Your task to perform on an android device: open app "Google Photos" Image 0: 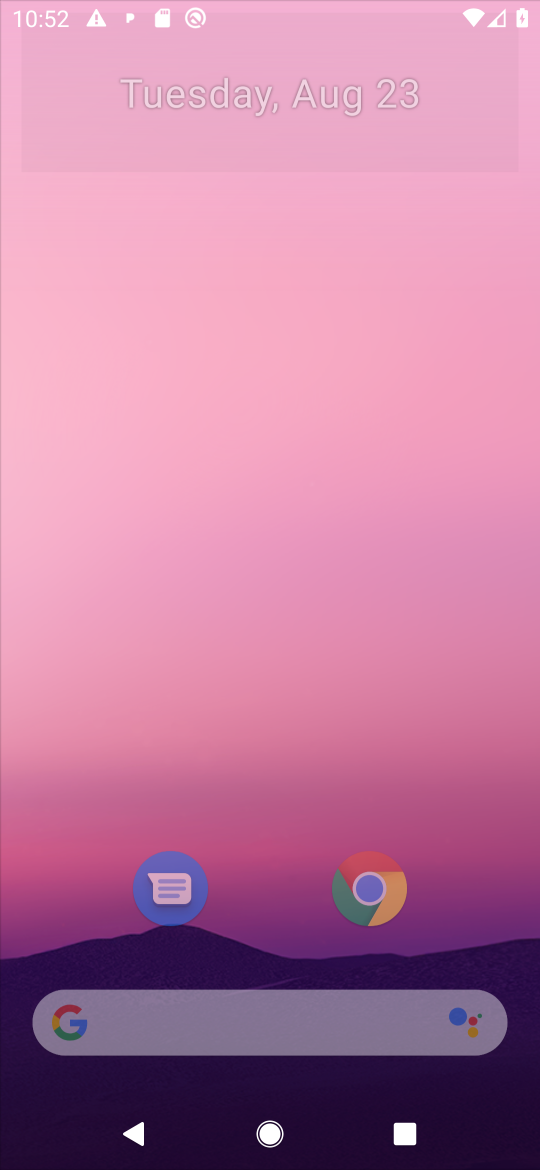
Step 0: press home button
Your task to perform on an android device: open app "Google Photos" Image 1: 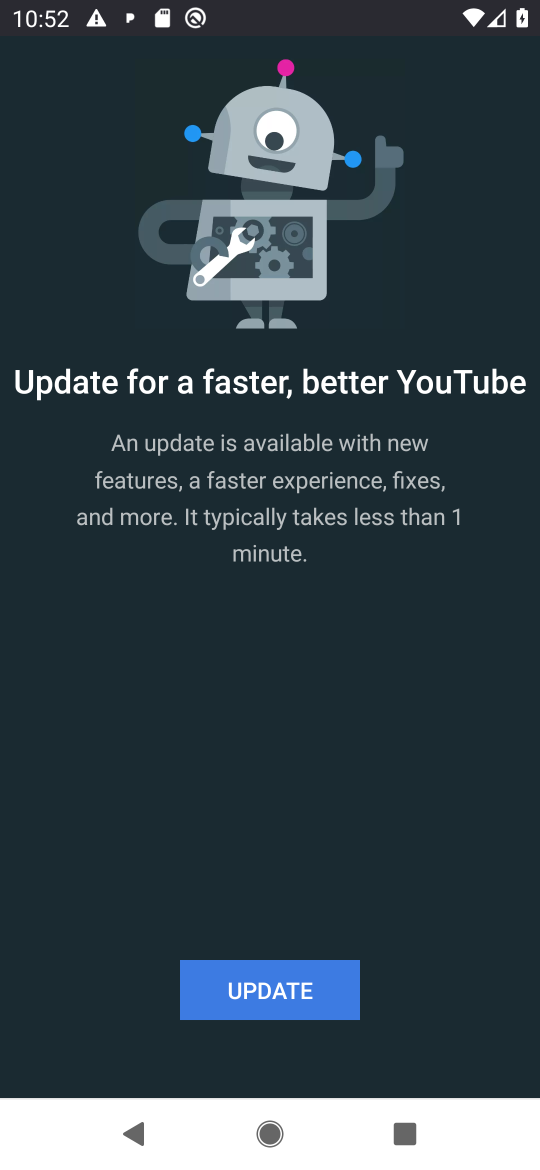
Step 1: drag from (445, 511) to (449, 130)
Your task to perform on an android device: open app "Google Photos" Image 2: 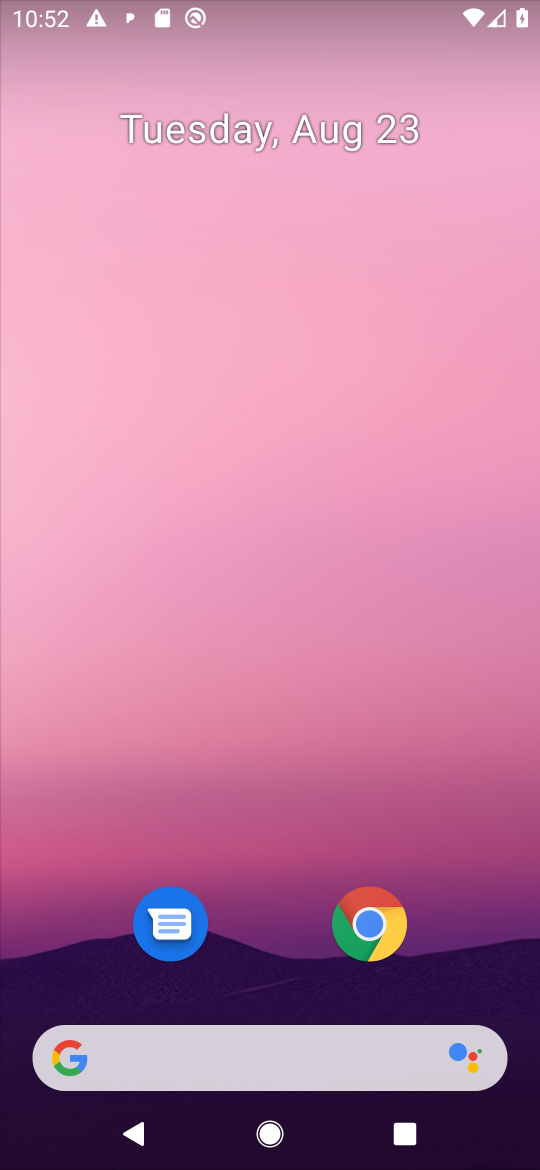
Step 2: drag from (447, 973) to (483, 63)
Your task to perform on an android device: open app "Google Photos" Image 3: 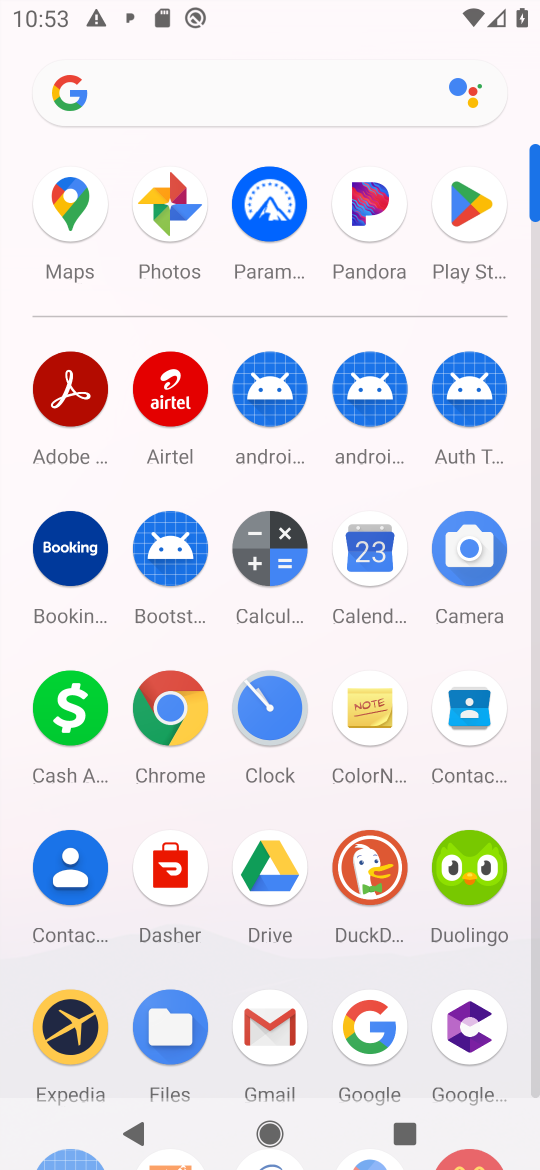
Step 3: click (467, 209)
Your task to perform on an android device: open app "Google Photos" Image 4: 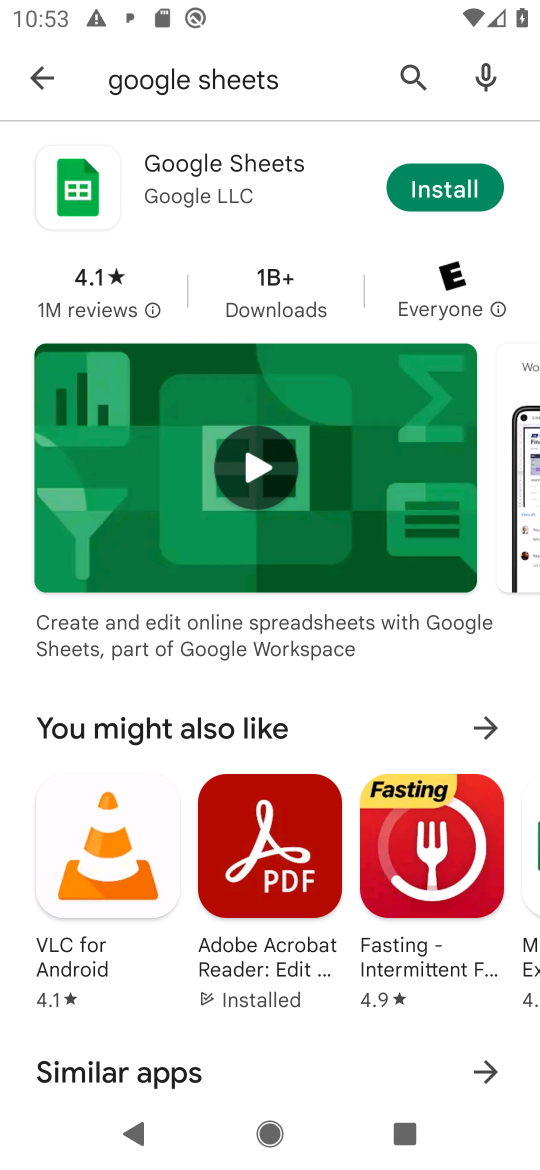
Step 4: press back button
Your task to perform on an android device: open app "Google Photos" Image 5: 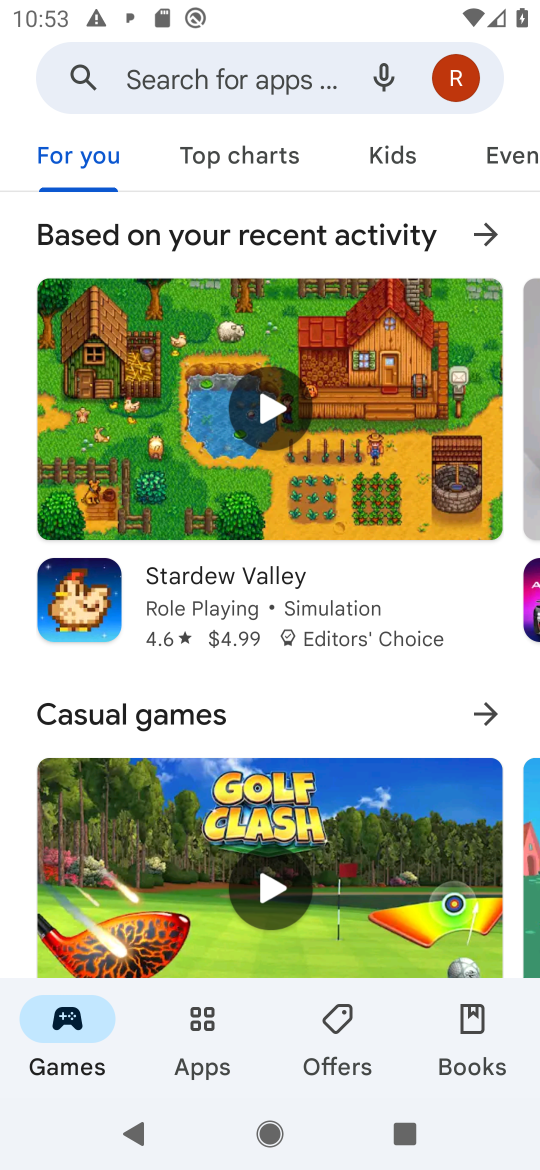
Step 5: click (245, 78)
Your task to perform on an android device: open app "Google Photos" Image 6: 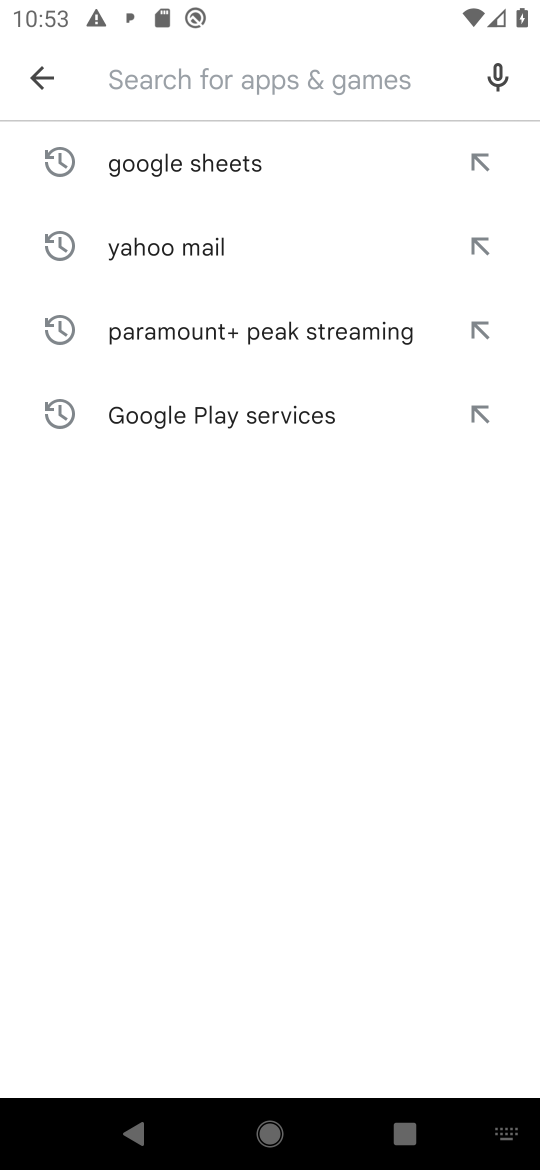
Step 6: type "google photos"
Your task to perform on an android device: open app "Google Photos" Image 7: 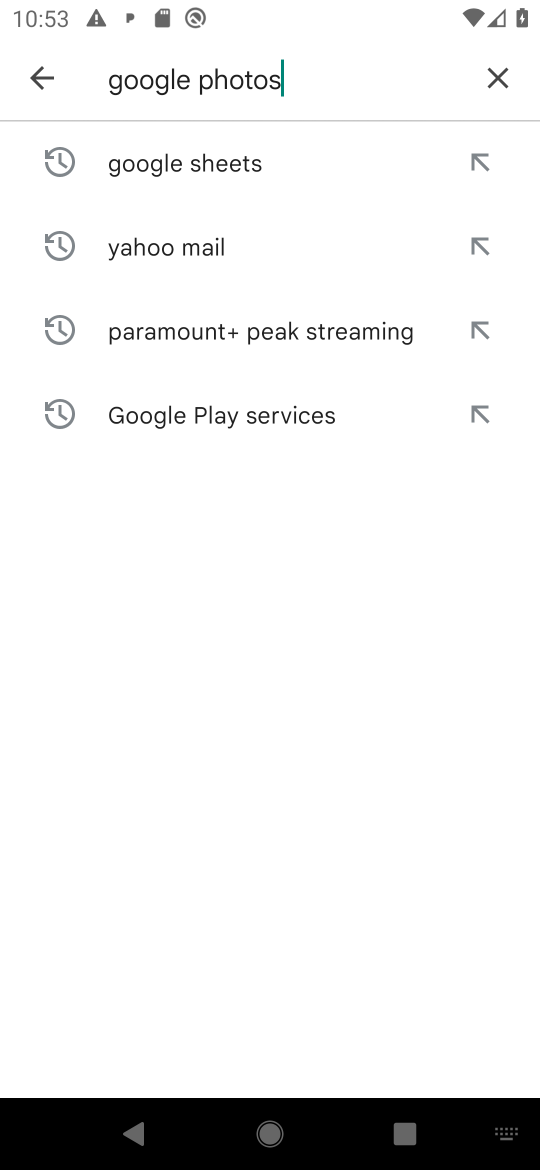
Step 7: press enter
Your task to perform on an android device: open app "Google Photos" Image 8: 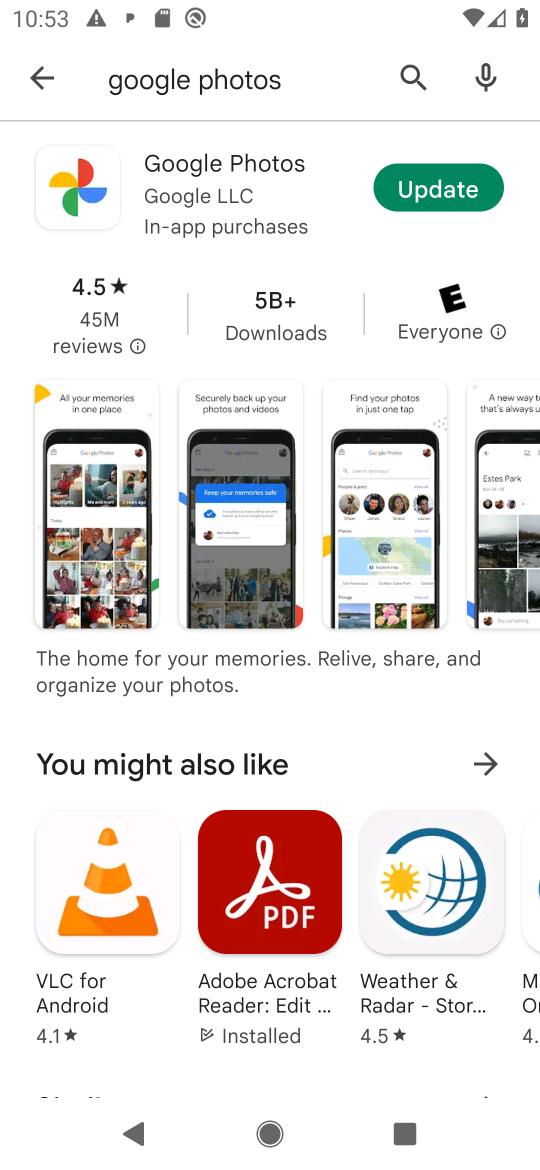
Step 8: click (421, 185)
Your task to perform on an android device: open app "Google Photos" Image 9: 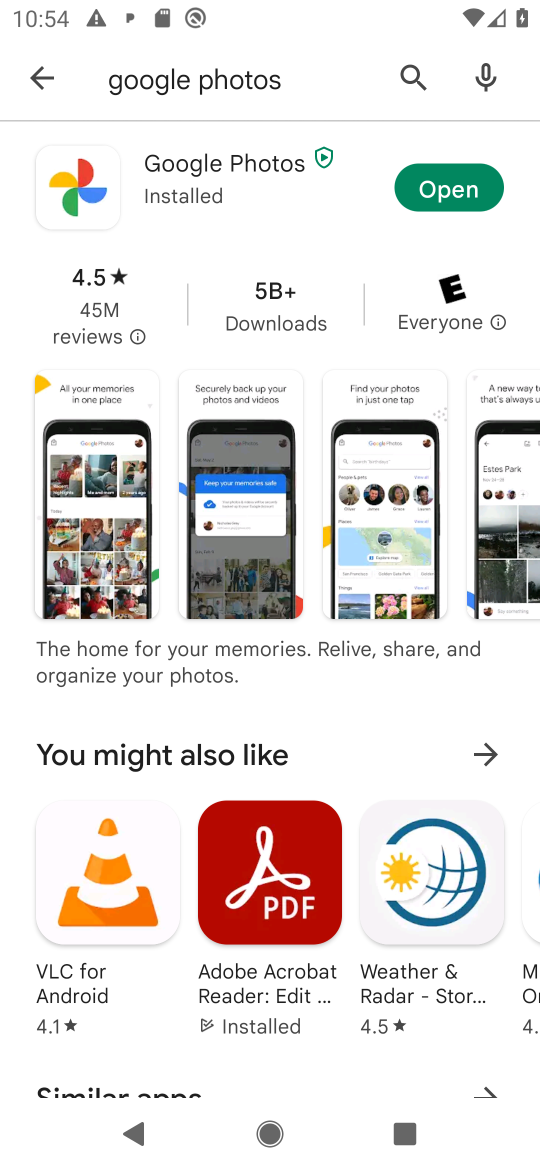
Step 9: click (452, 194)
Your task to perform on an android device: open app "Google Photos" Image 10: 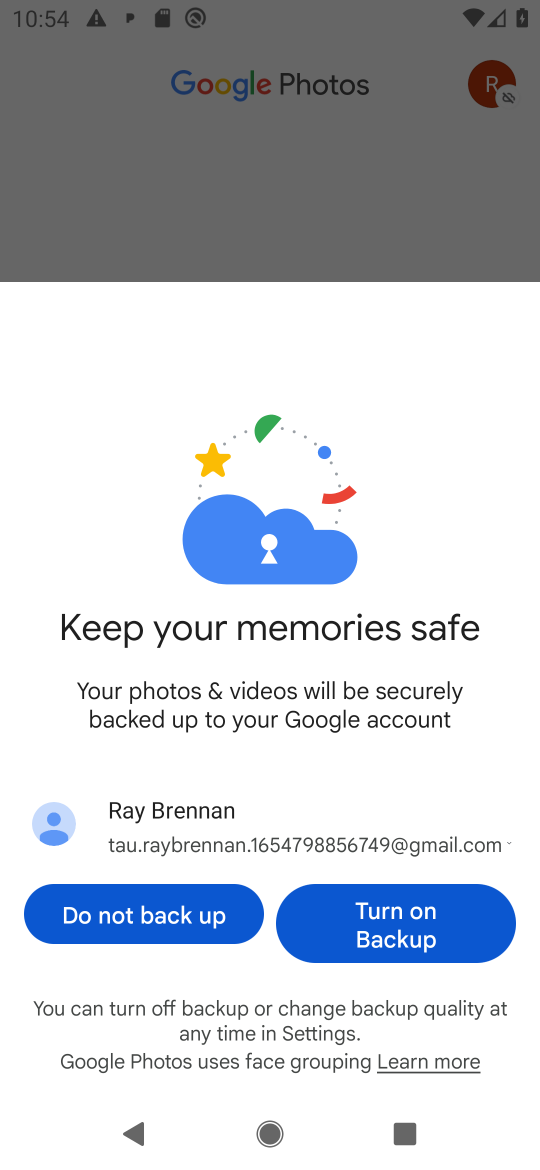
Step 10: click (175, 920)
Your task to perform on an android device: open app "Google Photos" Image 11: 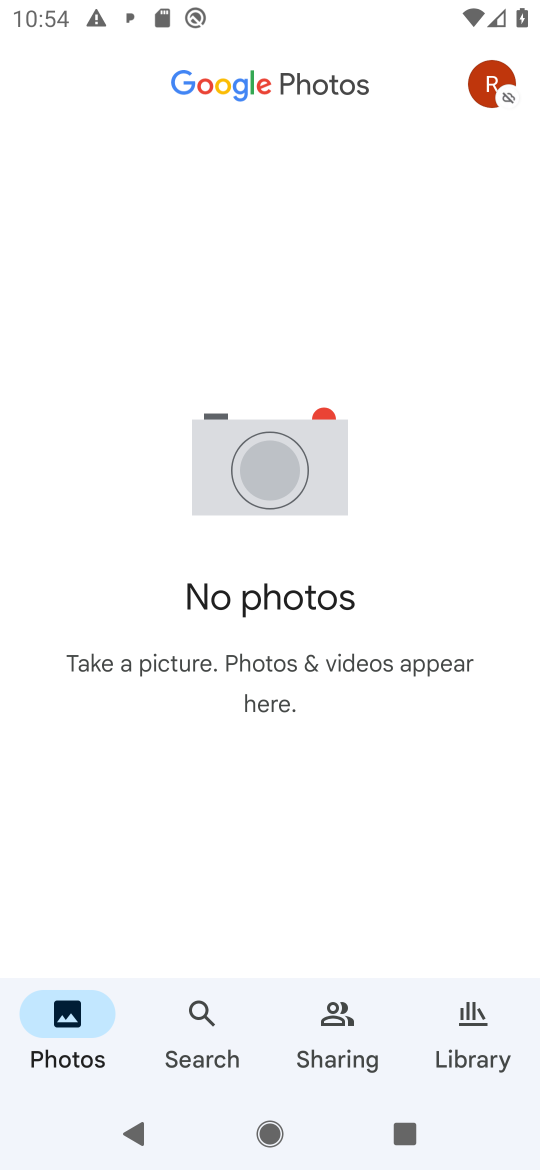
Step 11: task complete